Your task to perform on an android device: Is it going to rain this weekend? Image 0: 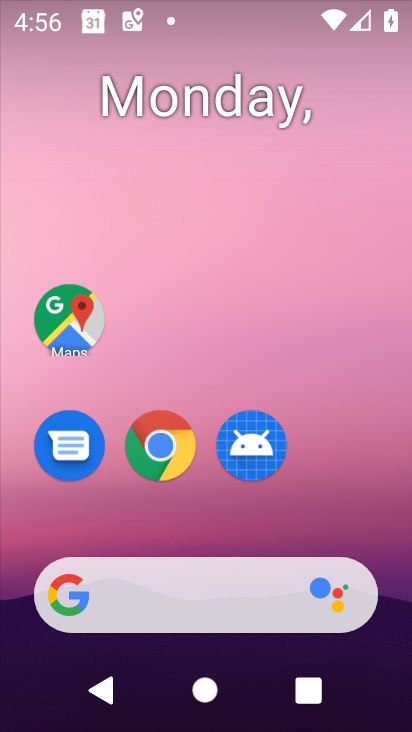
Step 0: click (160, 442)
Your task to perform on an android device: Is it going to rain this weekend? Image 1: 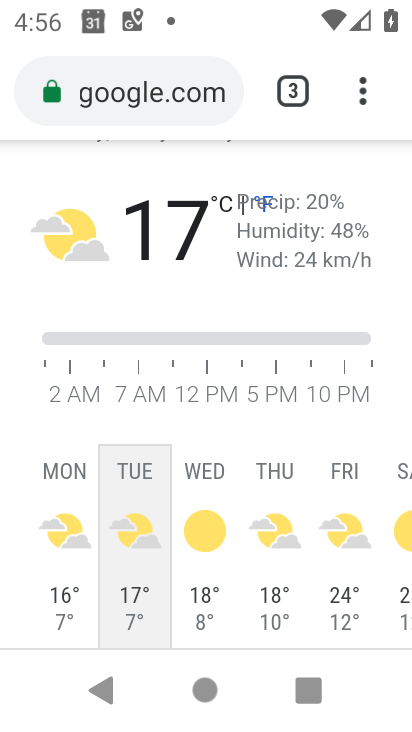
Step 1: click (112, 87)
Your task to perform on an android device: Is it going to rain this weekend? Image 2: 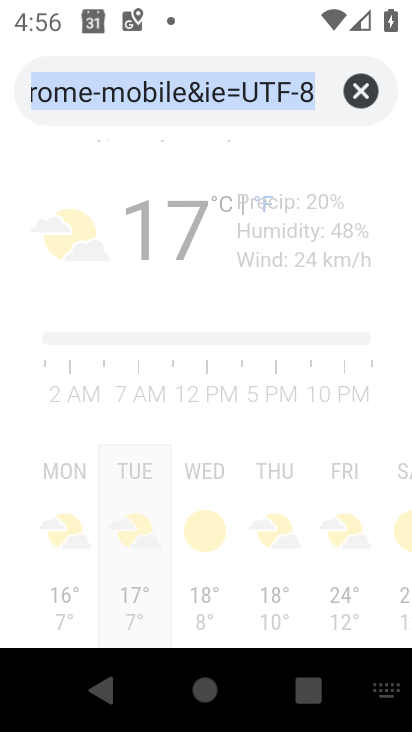
Step 2: click (348, 91)
Your task to perform on an android device: Is it going to rain this weekend? Image 3: 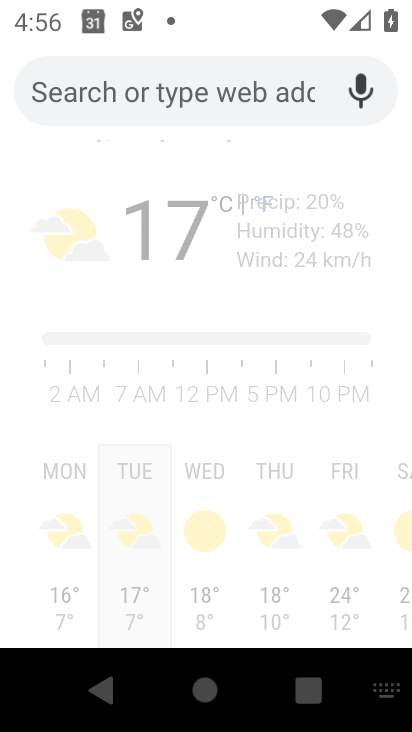
Step 3: click (219, 100)
Your task to perform on an android device: Is it going to rain this weekend? Image 4: 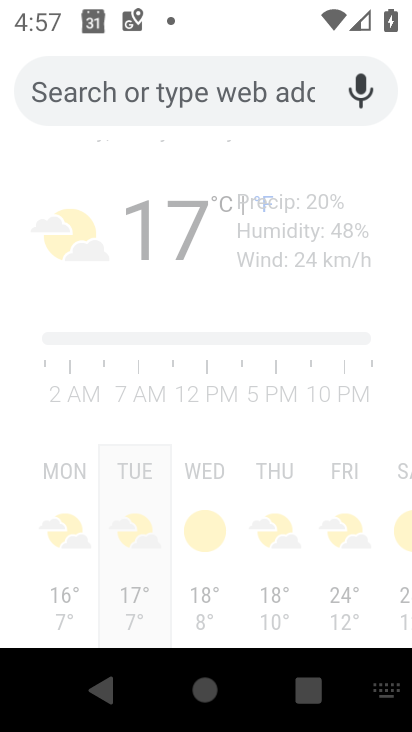
Step 4: type "Is it going to rain this weekend?"
Your task to perform on an android device: Is it going to rain this weekend? Image 5: 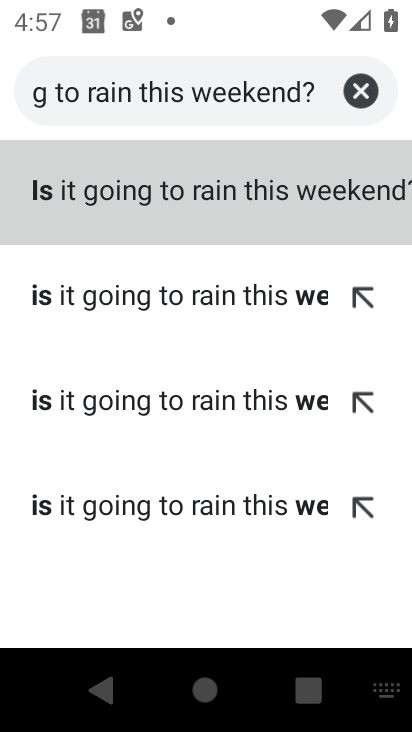
Step 5: click (202, 185)
Your task to perform on an android device: Is it going to rain this weekend? Image 6: 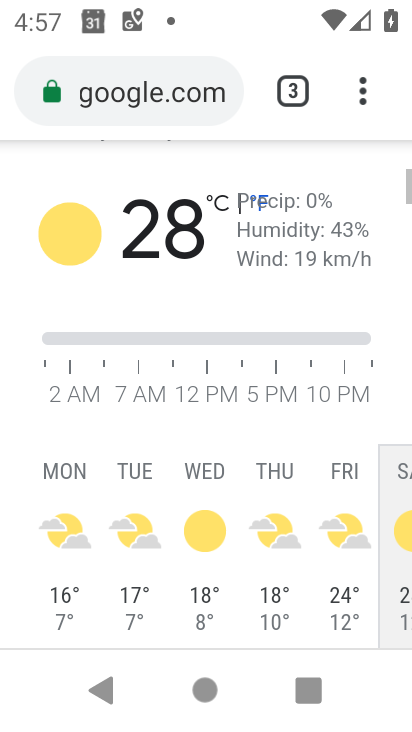
Step 6: task complete